Your task to perform on an android device: Search for logitech g903 on costco, select the first entry, add it to the cart, then select checkout. Image 0: 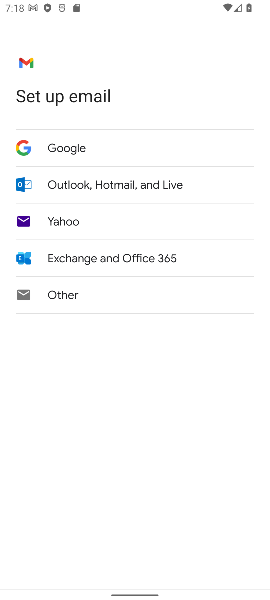
Step 0: press home button
Your task to perform on an android device: Search for logitech g903 on costco, select the first entry, add it to the cart, then select checkout. Image 1: 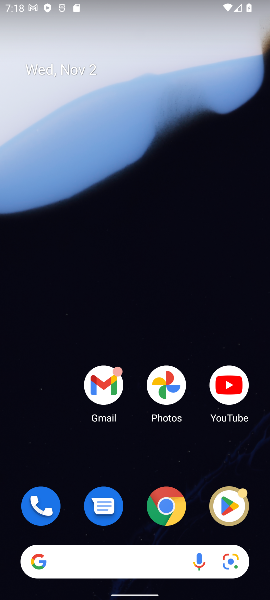
Step 1: click (124, 556)
Your task to perform on an android device: Search for logitech g903 on costco, select the first entry, add it to the cart, then select checkout. Image 2: 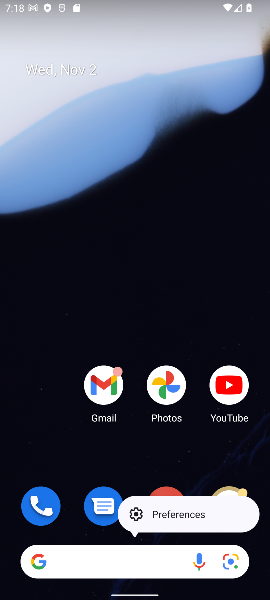
Step 2: click (124, 556)
Your task to perform on an android device: Search for logitech g903 on costco, select the first entry, add it to the cart, then select checkout. Image 3: 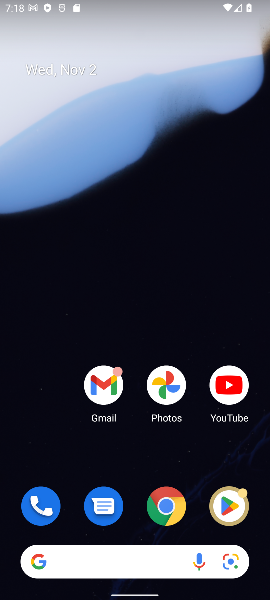
Step 3: click (124, 556)
Your task to perform on an android device: Search for logitech g903 on costco, select the first entry, add it to the cart, then select checkout. Image 4: 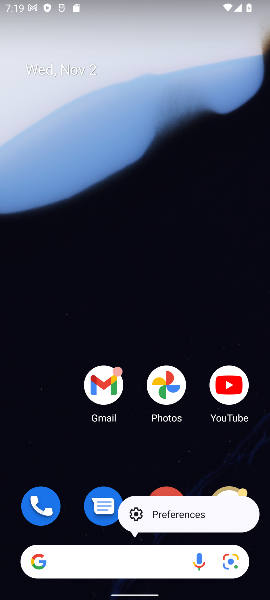
Step 4: click (124, 556)
Your task to perform on an android device: Search for logitech g903 on costco, select the first entry, add it to the cart, then select checkout. Image 5: 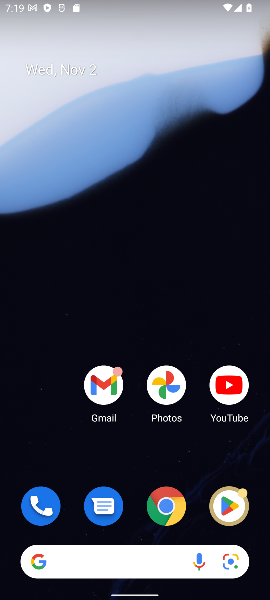
Step 5: click (124, 556)
Your task to perform on an android device: Search for logitech g903 on costco, select the first entry, add it to the cart, then select checkout. Image 6: 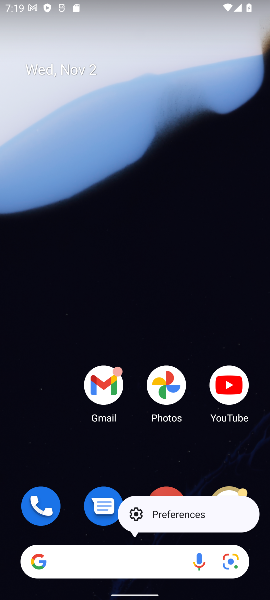
Step 6: click (109, 555)
Your task to perform on an android device: Search for logitech g903 on costco, select the first entry, add it to the cart, then select checkout. Image 7: 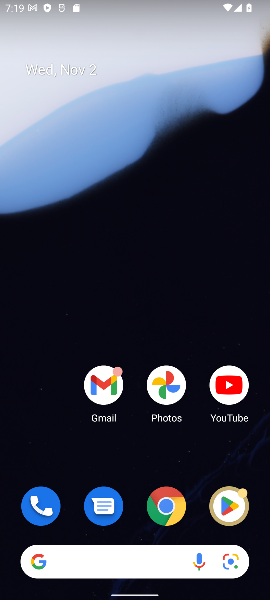
Step 7: click (102, 555)
Your task to perform on an android device: Search for logitech g903 on costco, select the first entry, add it to the cart, then select checkout. Image 8: 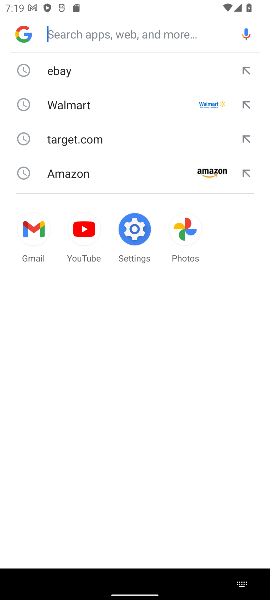
Step 8: type "costco"
Your task to perform on an android device: Search for logitech g903 on costco, select the first entry, add it to the cart, then select checkout. Image 9: 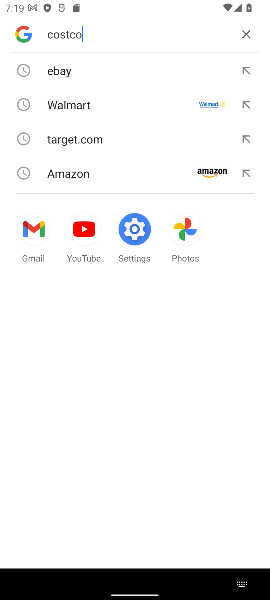
Step 9: type ""
Your task to perform on an android device: Search for logitech g903 on costco, select the first entry, add it to the cart, then select checkout. Image 10: 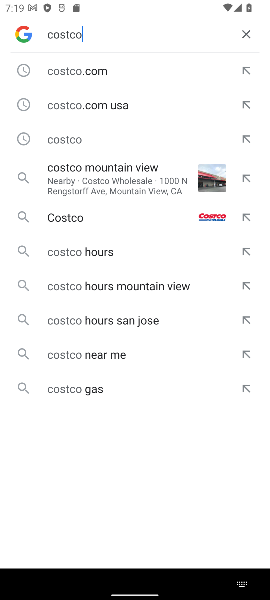
Step 10: press enter
Your task to perform on an android device: Search for logitech g903 on costco, select the first entry, add it to the cart, then select checkout. Image 11: 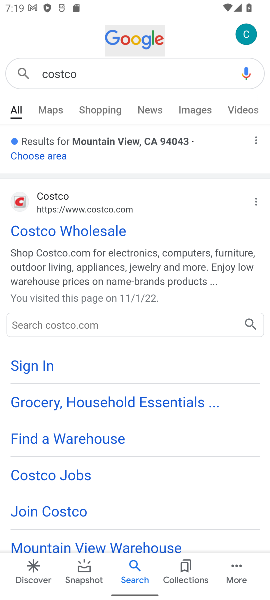
Step 11: click (85, 212)
Your task to perform on an android device: Search for logitech g903 on costco, select the first entry, add it to the cart, then select checkout. Image 12: 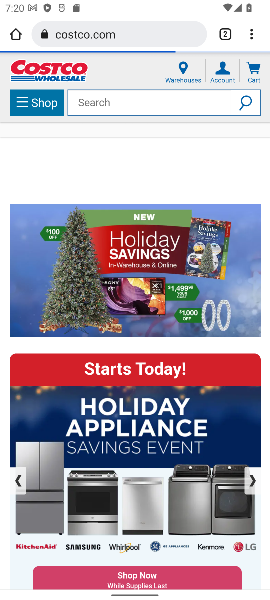
Step 12: click (108, 106)
Your task to perform on an android device: Search for logitech g903 on costco, select the first entry, add it to the cart, then select checkout. Image 13: 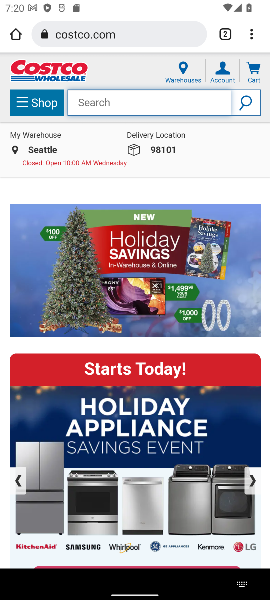
Step 13: type " logitech g903"
Your task to perform on an android device: Search for logitech g903 on costco, select the first entry, add it to the cart, then select checkout. Image 14: 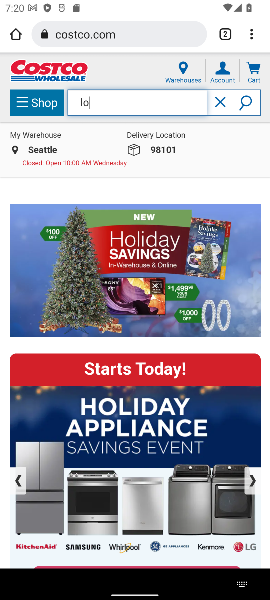
Step 14: type ""
Your task to perform on an android device: Search for logitech g903 on costco, select the first entry, add it to the cart, then select checkout. Image 15: 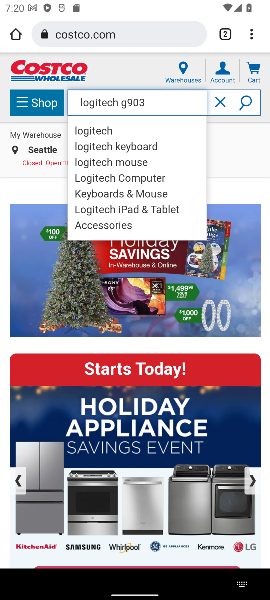
Step 15: press enter
Your task to perform on an android device: Search for logitech g903 on costco, select the first entry, add it to the cart, then select checkout. Image 16: 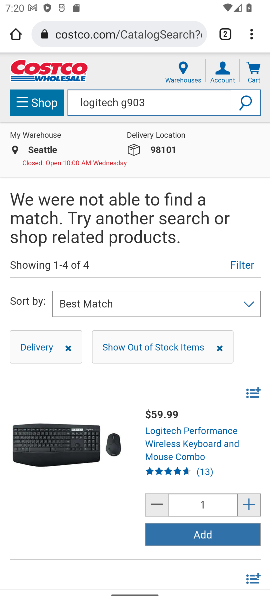
Step 16: click (243, 543)
Your task to perform on an android device: Search for logitech g903 on costco, select the first entry, add it to the cart, then select checkout. Image 17: 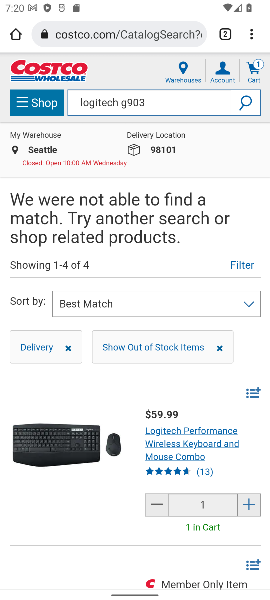
Step 17: click (257, 69)
Your task to perform on an android device: Search for logitech g903 on costco, select the first entry, add it to the cart, then select checkout. Image 18: 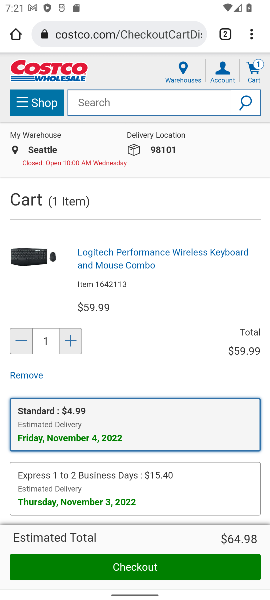
Step 18: click (142, 569)
Your task to perform on an android device: Search for logitech g903 on costco, select the first entry, add it to the cart, then select checkout. Image 19: 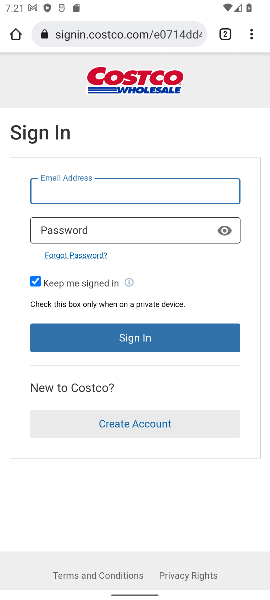
Step 19: task complete